Your task to perform on an android device: Open Google Chrome and open the bookmarks view Image 0: 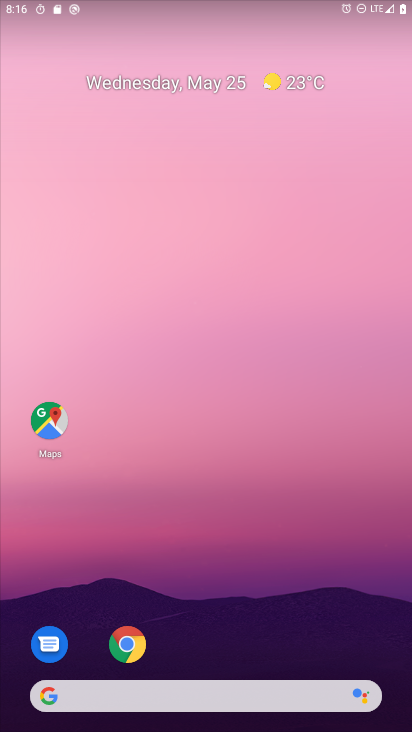
Step 0: drag from (343, 659) to (307, 110)
Your task to perform on an android device: Open Google Chrome and open the bookmarks view Image 1: 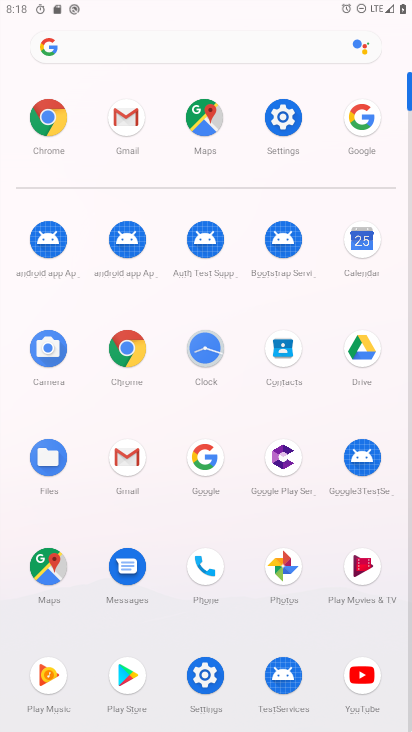
Step 1: click (46, 115)
Your task to perform on an android device: Open Google Chrome and open the bookmarks view Image 2: 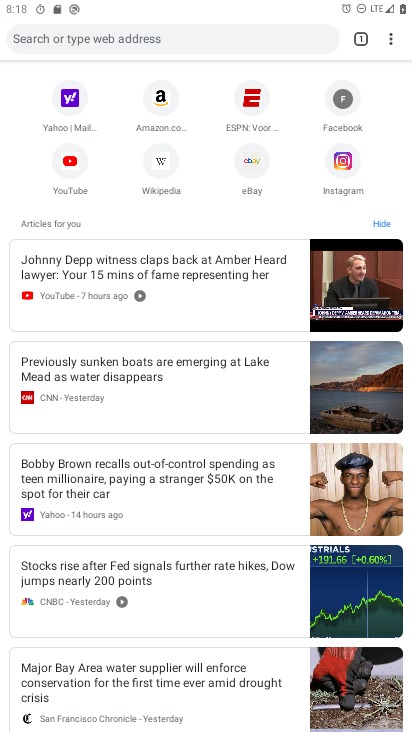
Step 2: click (389, 36)
Your task to perform on an android device: Open Google Chrome and open the bookmarks view Image 3: 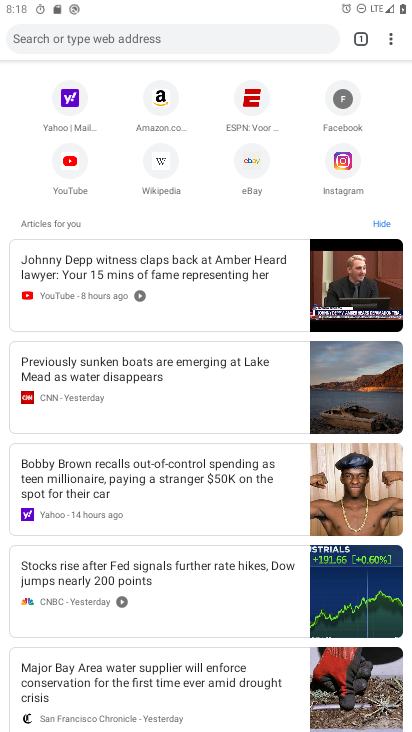
Step 3: click (396, 32)
Your task to perform on an android device: Open Google Chrome and open the bookmarks view Image 4: 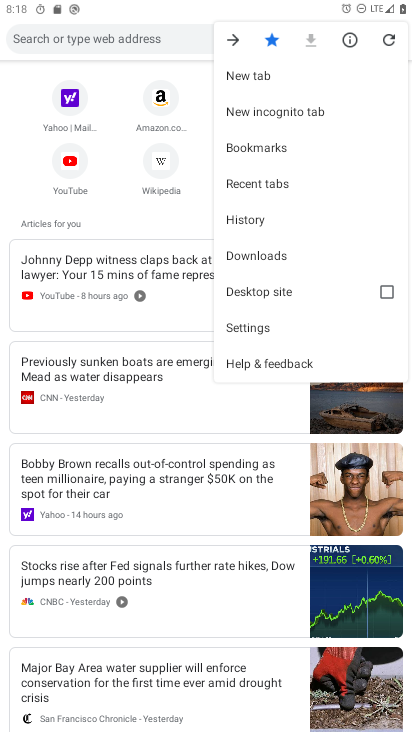
Step 4: click (280, 148)
Your task to perform on an android device: Open Google Chrome and open the bookmarks view Image 5: 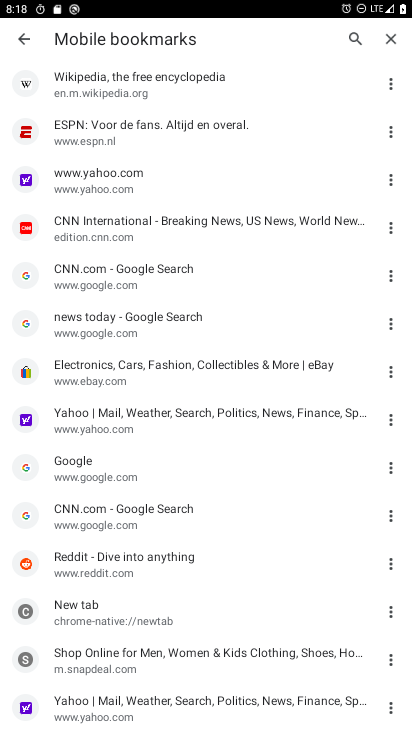
Step 5: task complete